Your task to perform on an android device: toggle improve location accuracy Image 0: 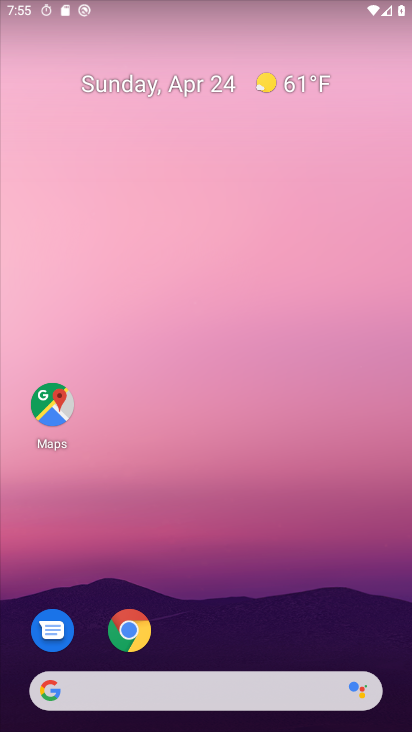
Step 0: click (281, 389)
Your task to perform on an android device: toggle improve location accuracy Image 1: 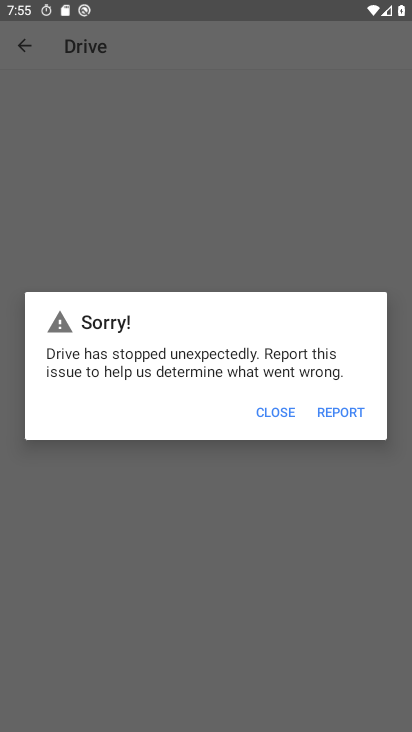
Step 1: press home button
Your task to perform on an android device: toggle improve location accuracy Image 2: 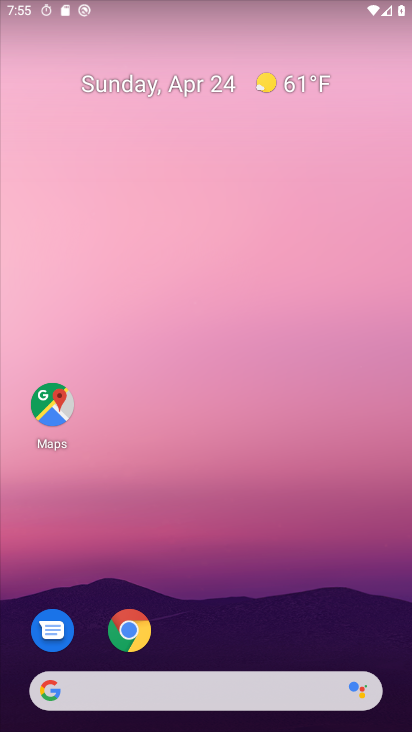
Step 2: drag from (354, 634) to (335, 65)
Your task to perform on an android device: toggle improve location accuracy Image 3: 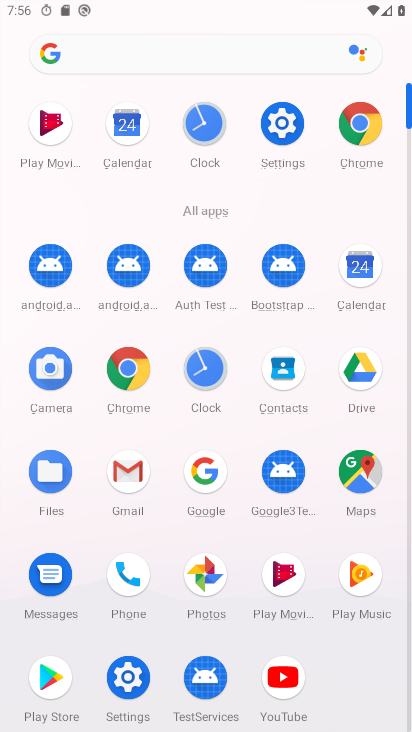
Step 3: click (276, 131)
Your task to perform on an android device: toggle improve location accuracy Image 4: 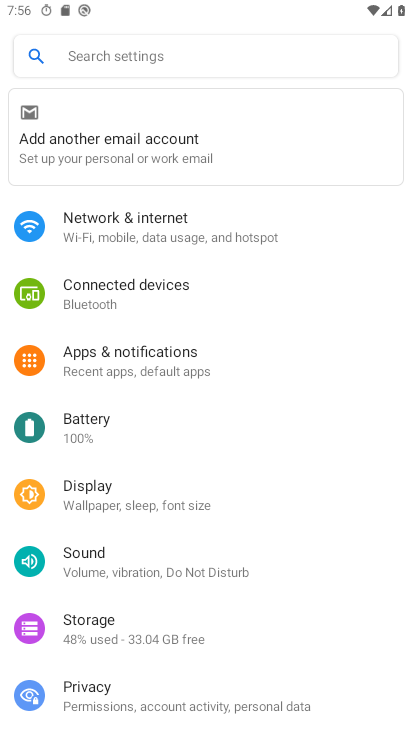
Step 4: drag from (361, 604) to (367, 447)
Your task to perform on an android device: toggle improve location accuracy Image 5: 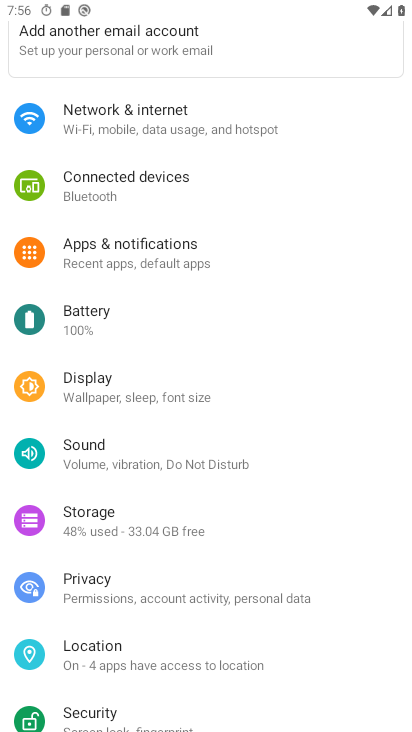
Step 5: drag from (352, 615) to (364, 460)
Your task to perform on an android device: toggle improve location accuracy Image 6: 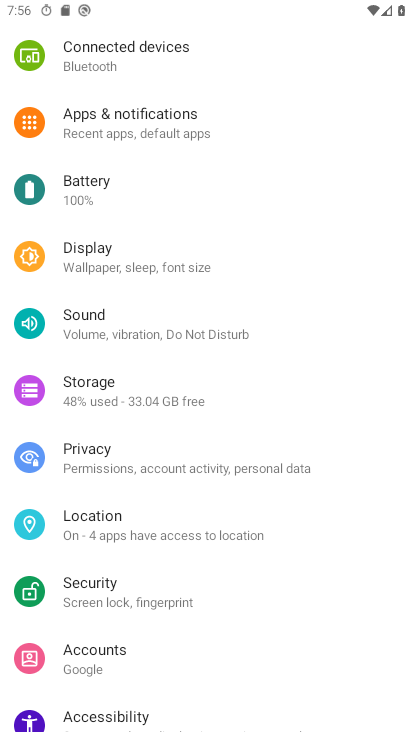
Step 6: drag from (350, 624) to (357, 448)
Your task to perform on an android device: toggle improve location accuracy Image 7: 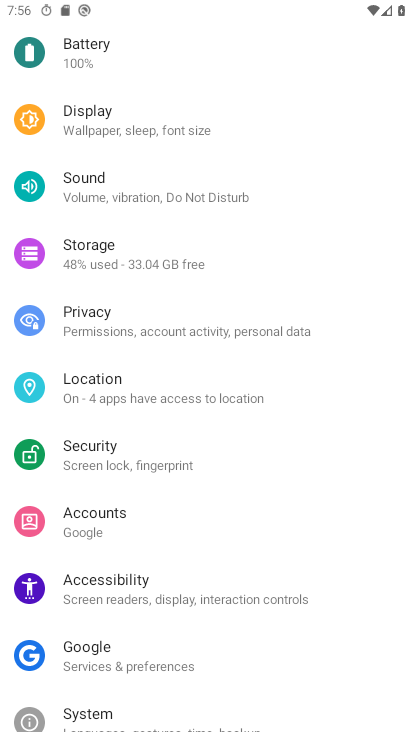
Step 7: drag from (359, 676) to (341, 504)
Your task to perform on an android device: toggle improve location accuracy Image 8: 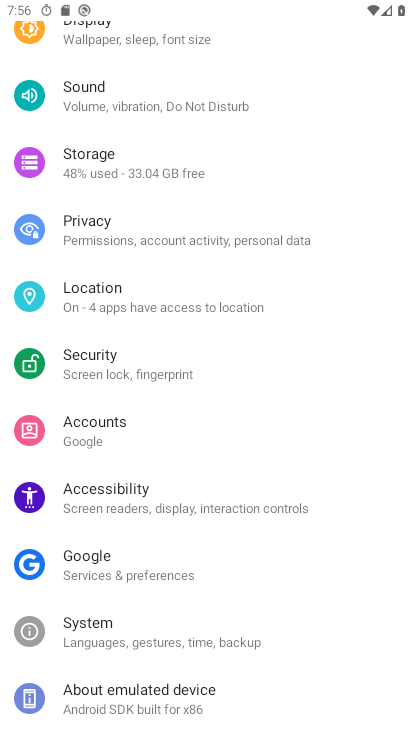
Step 8: drag from (362, 666) to (372, 506)
Your task to perform on an android device: toggle improve location accuracy Image 9: 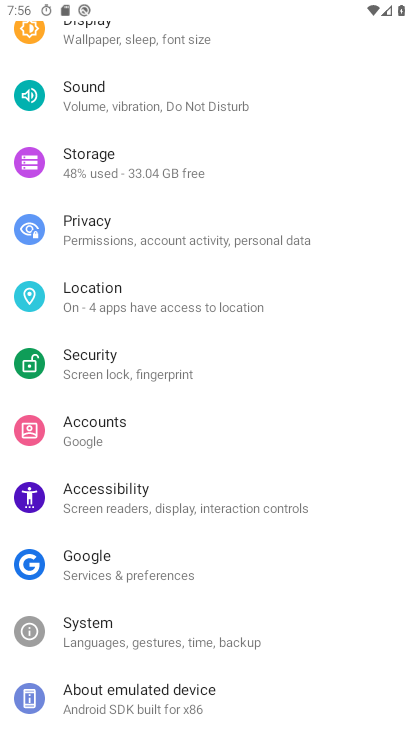
Step 9: drag from (357, 360) to (348, 509)
Your task to perform on an android device: toggle improve location accuracy Image 10: 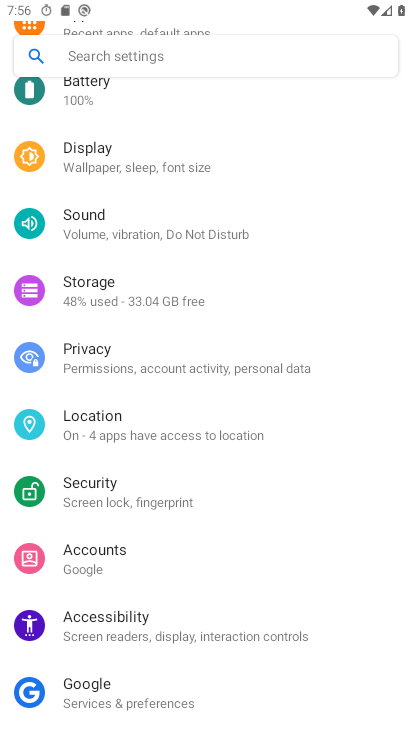
Step 10: drag from (341, 336) to (351, 486)
Your task to perform on an android device: toggle improve location accuracy Image 11: 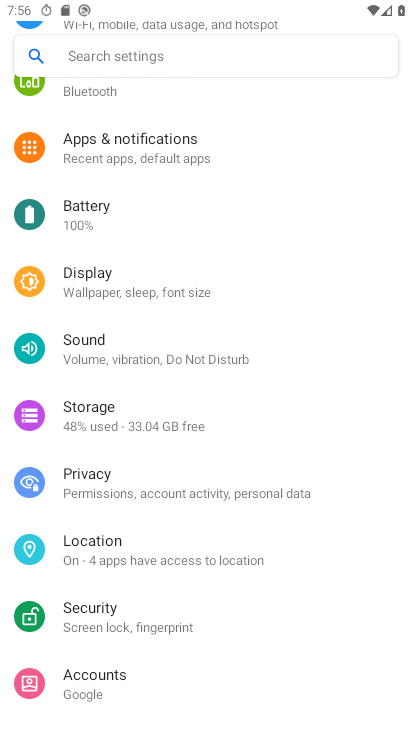
Step 11: drag from (345, 328) to (355, 488)
Your task to perform on an android device: toggle improve location accuracy Image 12: 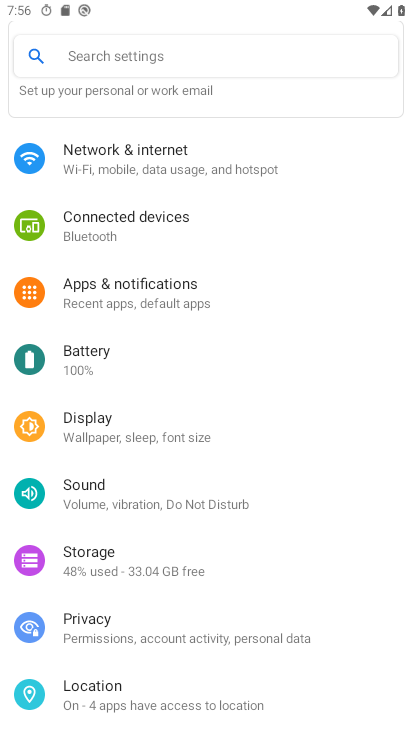
Step 12: drag from (350, 313) to (354, 464)
Your task to perform on an android device: toggle improve location accuracy Image 13: 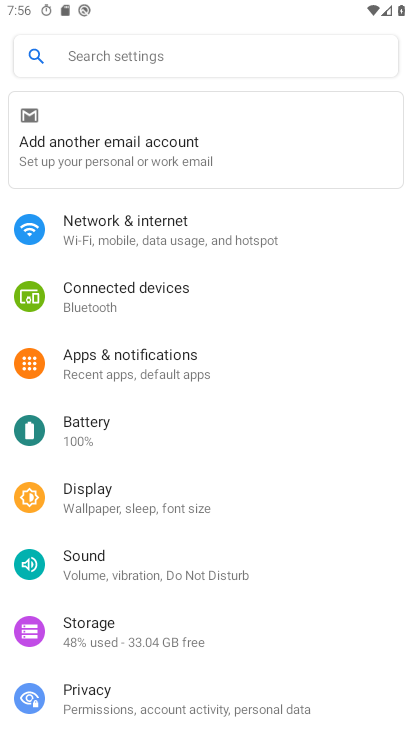
Step 13: drag from (341, 269) to (353, 460)
Your task to perform on an android device: toggle improve location accuracy Image 14: 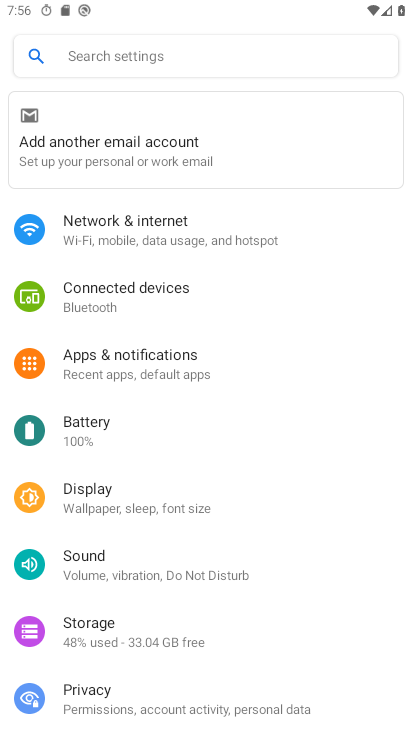
Step 14: drag from (333, 511) to (389, 404)
Your task to perform on an android device: toggle improve location accuracy Image 15: 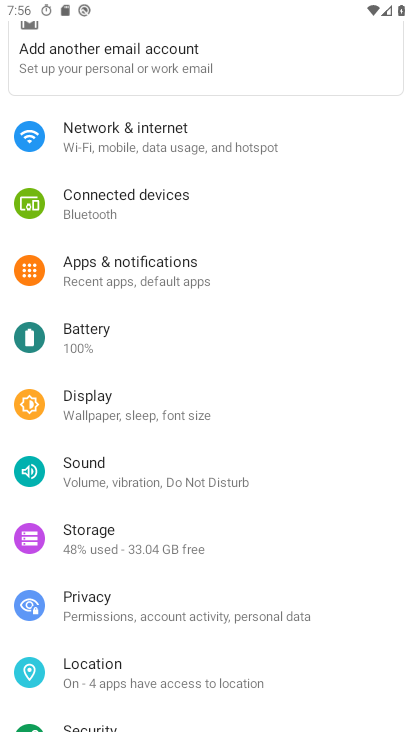
Step 15: drag from (356, 635) to (347, 341)
Your task to perform on an android device: toggle improve location accuracy Image 16: 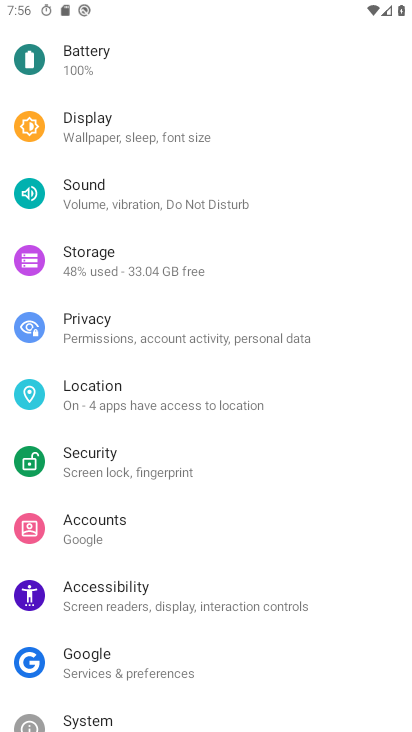
Step 16: click (255, 398)
Your task to perform on an android device: toggle improve location accuracy Image 17: 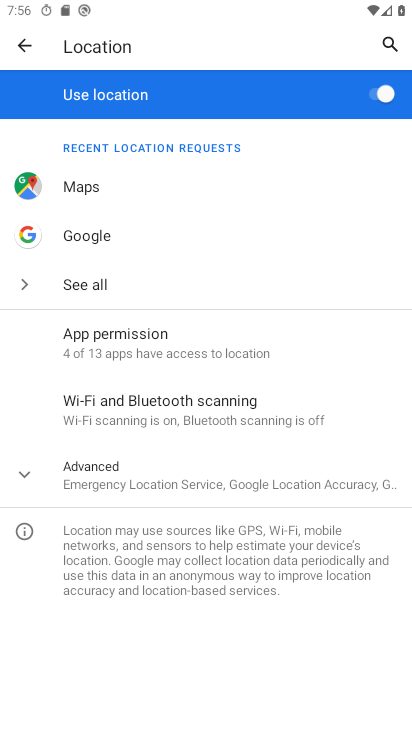
Step 17: click (271, 479)
Your task to perform on an android device: toggle improve location accuracy Image 18: 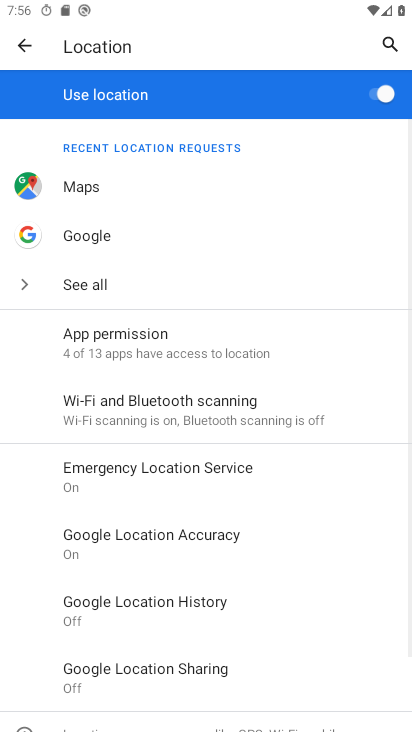
Step 18: drag from (302, 620) to (317, 444)
Your task to perform on an android device: toggle improve location accuracy Image 19: 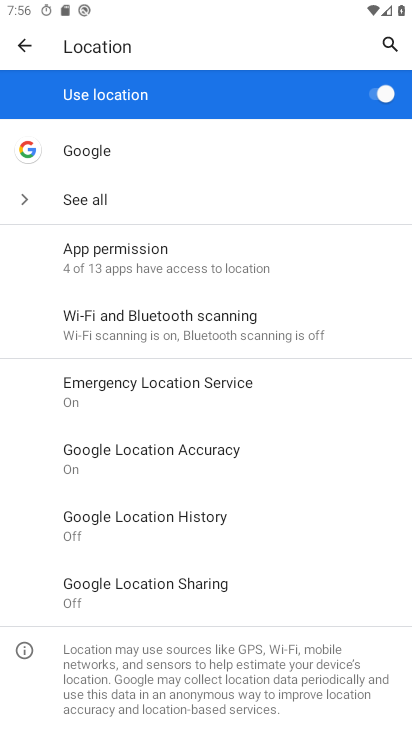
Step 19: drag from (314, 636) to (315, 457)
Your task to perform on an android device: toggle improve location accuracy Image 20: 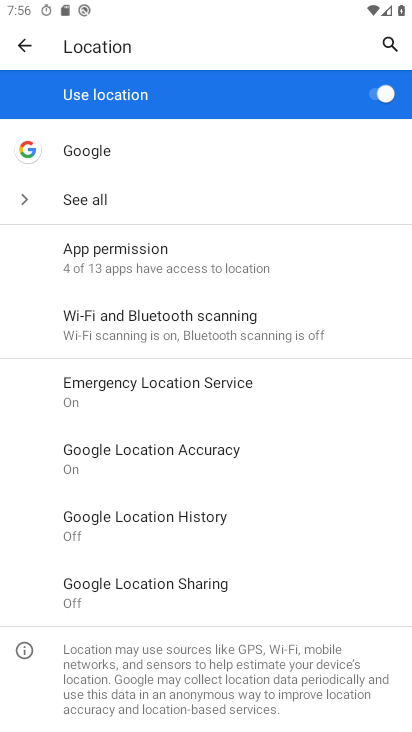
Step 20: click (232, 445)
Your task to perform on an android device: toggle improve location accuracy Image 21: 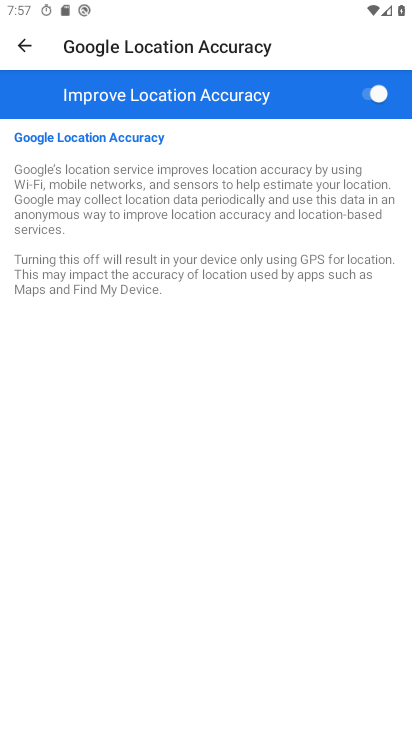
Step 21: click (367, 99)
Your task to perform on an android device: toggle improve location accuracy Image 22: 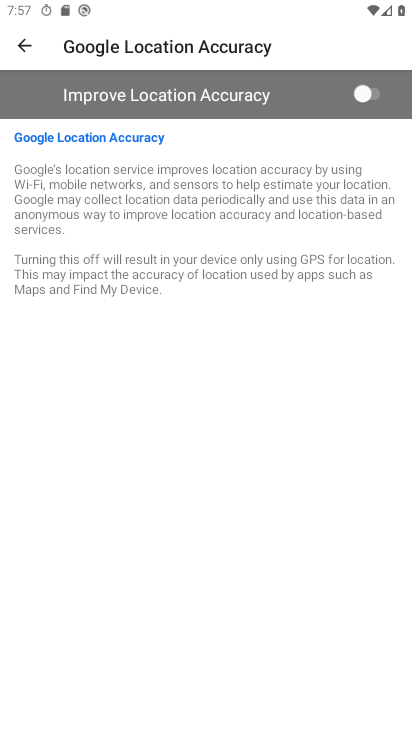
Step 22: task complete